Your task to perform on an android device: toggle translation in the chrome app Image 0: 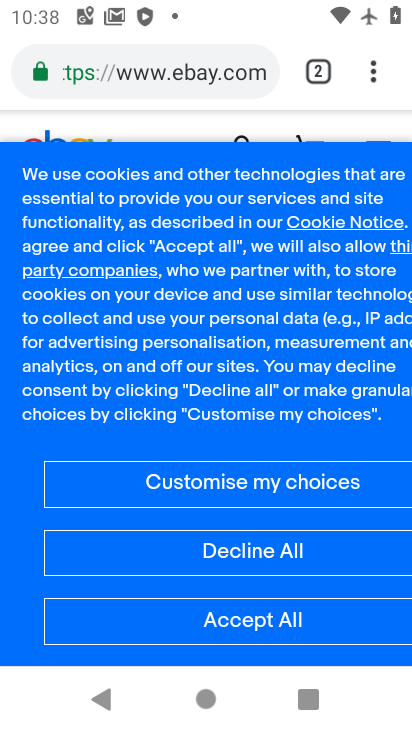
Step 0: click (360, 75)
Your task to perform on an android device: toggle translation in the chrome app Image 1: 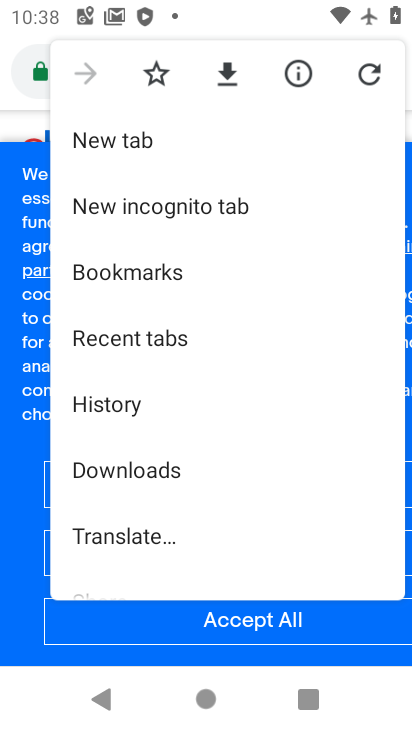
Step 1: drag from (139, 543) to (149, 302)
Your task to perform on an android device: toggle translation in the chrome app Image 2: 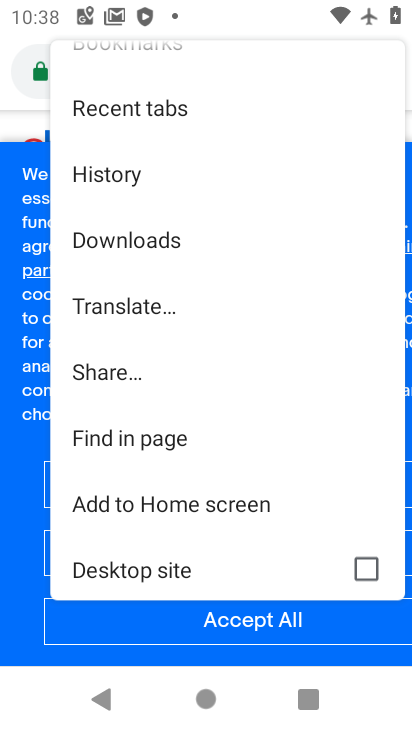
Step 2: drag from (138, 561) to (153, 264)
Your task to perform on an android device: toggle translation in the chrome app Image 3: 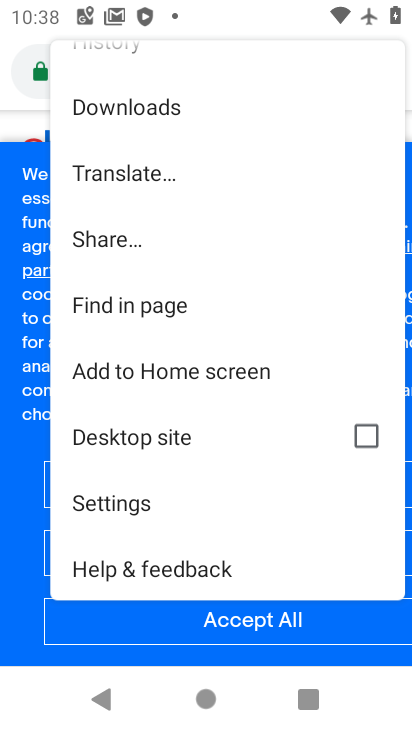
Step 3: click (140, 507)
Your task to perform on an android device: toggle translation in the chrome app Image 4: 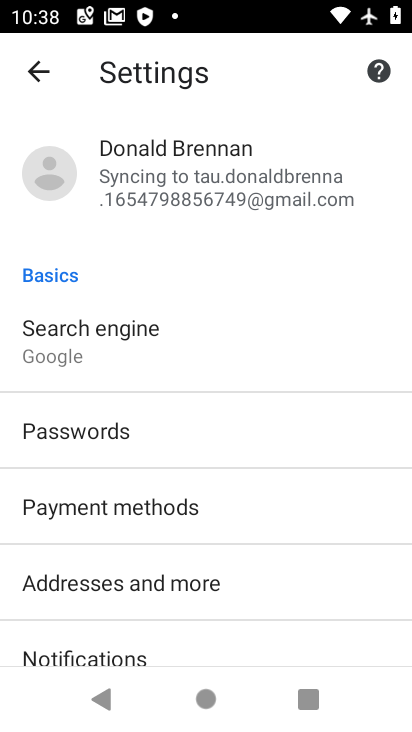
Step 4: task complete